Your task to perform on an android device: create a new album in the google photos Image 0: 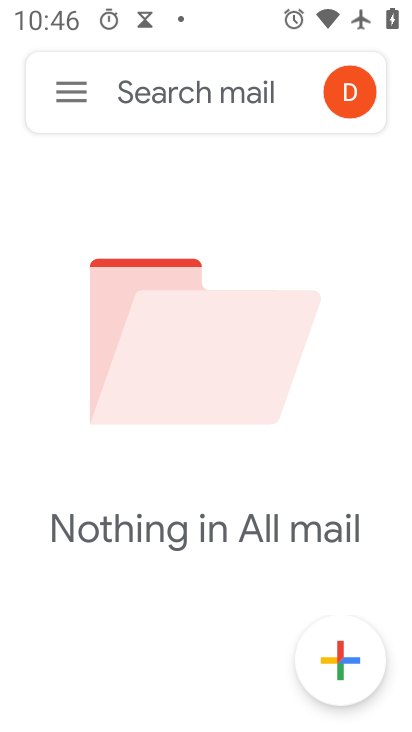
Step 0: press home button
Your task to perform on an android device: create a new album in the google photos Image 1: 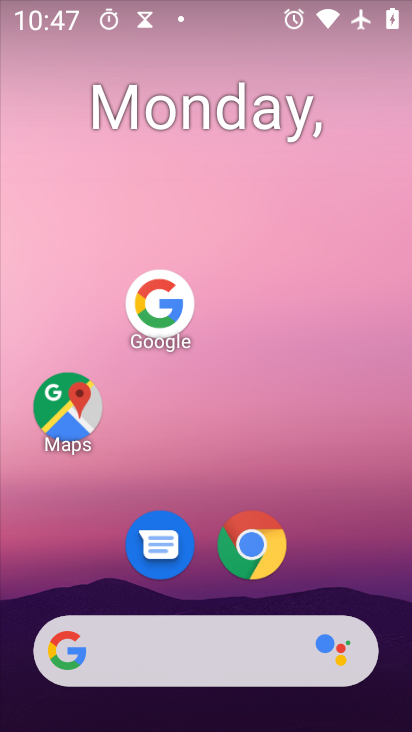
Step 1: drag from (173, 663) to (298, 151)
Your task to perform on an android device: create a new album in the google photos Image 2: 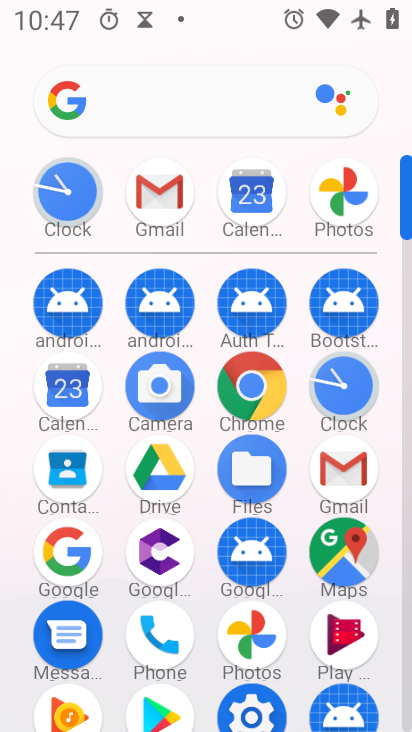
Step 2: drag from (210, 640) to (259, 299)
Your task to perform on an android device: create a new album in the google photos Image 3: 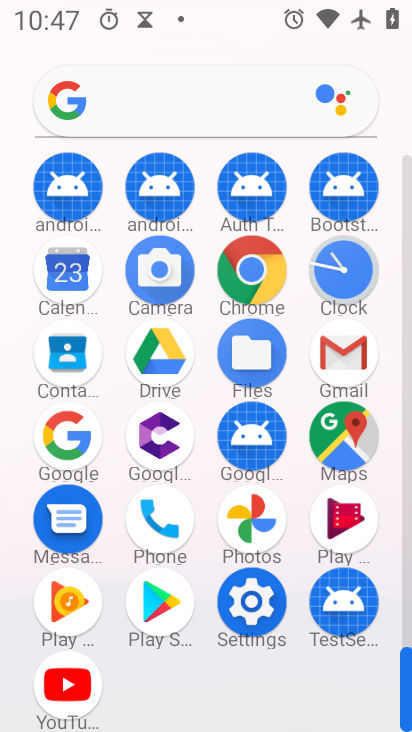
Step 3: click (256, 517)
Your task to perform on an android device: create a new album in the google photos Image 4: 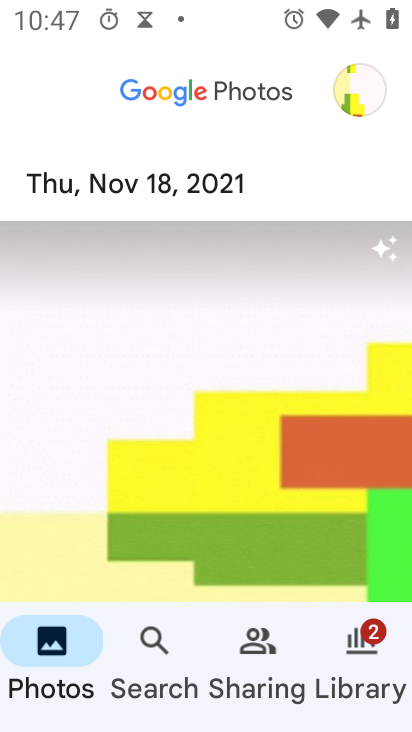
Step 4: click (342, 683)
Your task to perform on an android device: create a new album in the google photos Image 5: 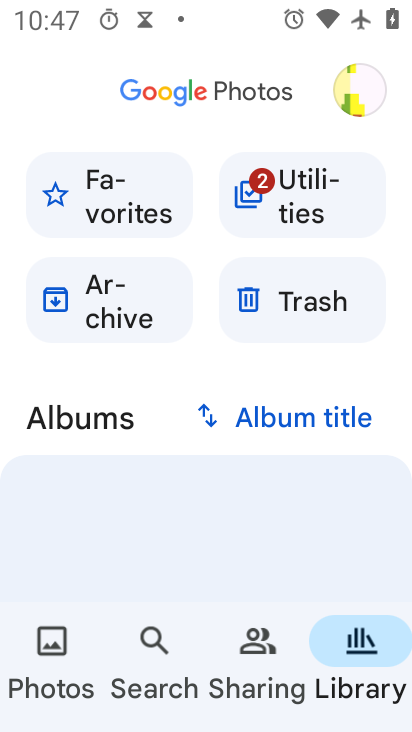
Step 5: drag from (212, 502) to (338, 228)
Your task to perform on an android device: create a new album in the google photos Image 6: 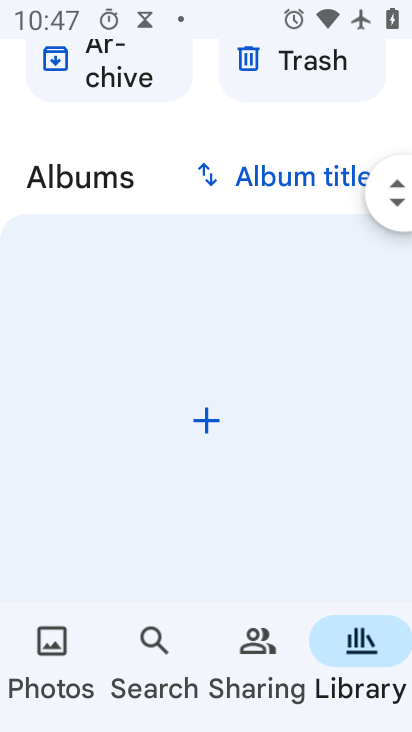
Step 6: click (208, 421)
Your task to perform on an android device: create a new album in the google photos Image 7: 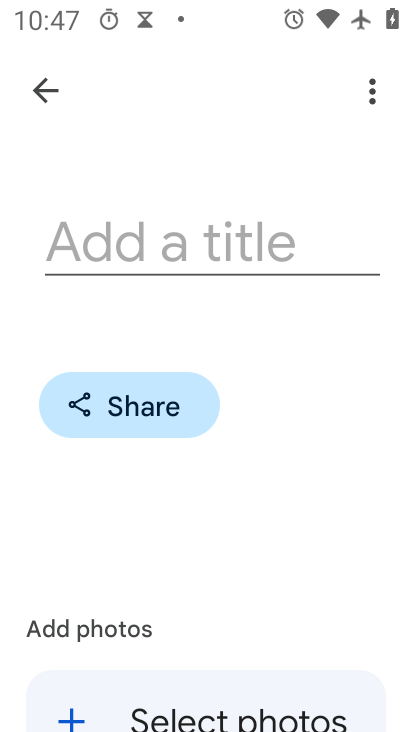
Step 7: drag from (180, 543) to (322, 141)
Your task to perform on an android device: create a new album in the google photos Image 8: 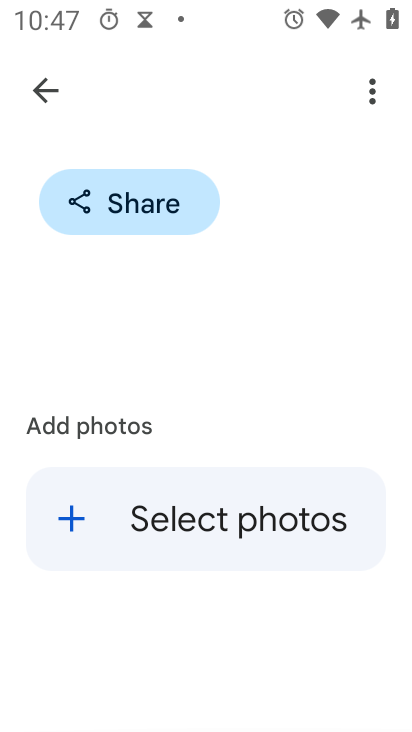
Step 8: click (228, 545)
Your task to perform on an android device: create a new album in the google photos Image 9: 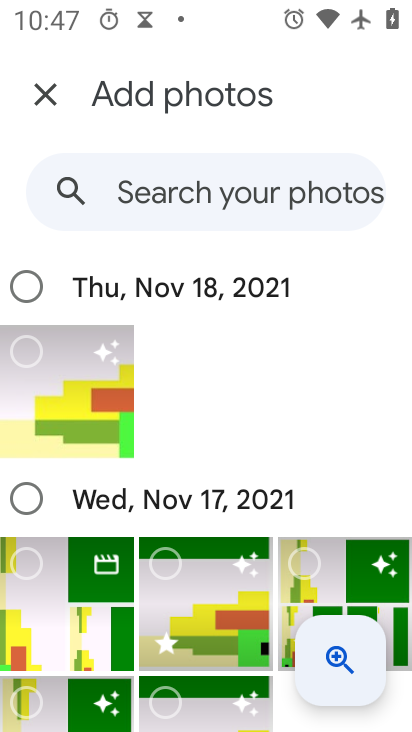
Step 9: click (85, 362)
Your task to perform on an android device: create a new album in the google photos Image 10: 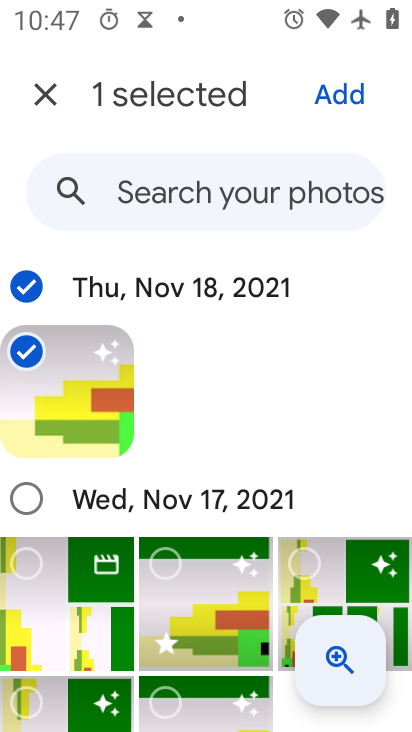
Step 10: click (49, 581)
Your task to perform on an android device: create a new album in the google photos Image 11: 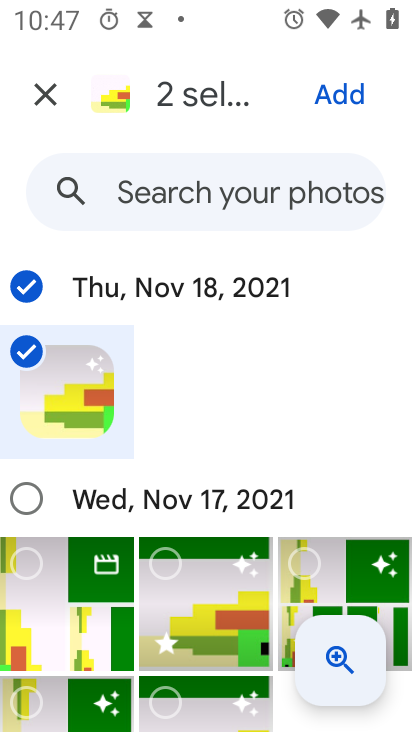
Step 11: click (183, 592)
Your task to perform on an android device: create a new album in the google photos Image 12: 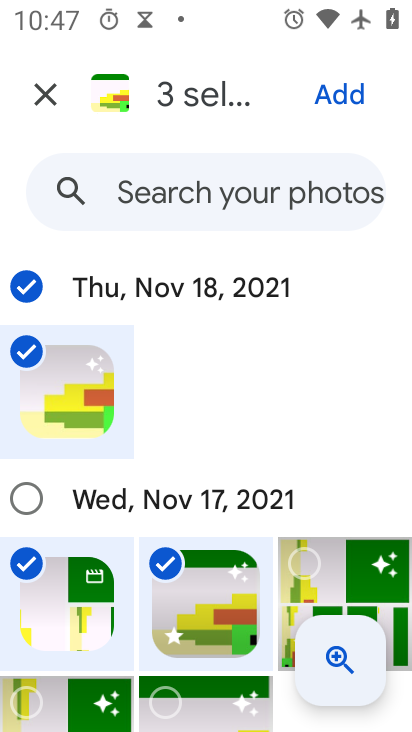
Step 12: click (327, 585)
Your task to perform on an android device: create a new album in the google photos Image 13: 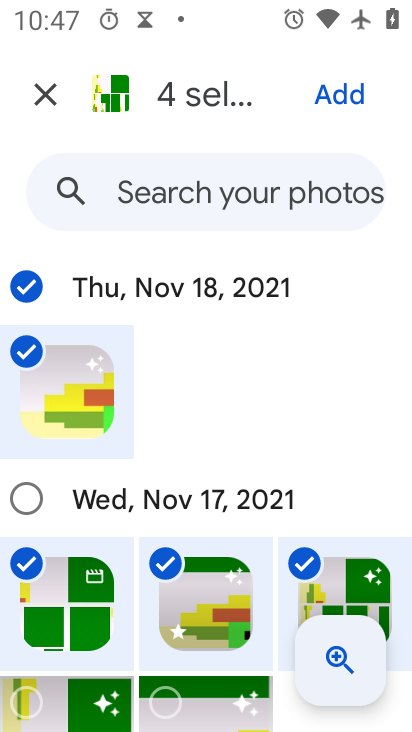
Step 13: click (342, 101)
Your task to perform on an android device: create a new album in the google photos Image 14: 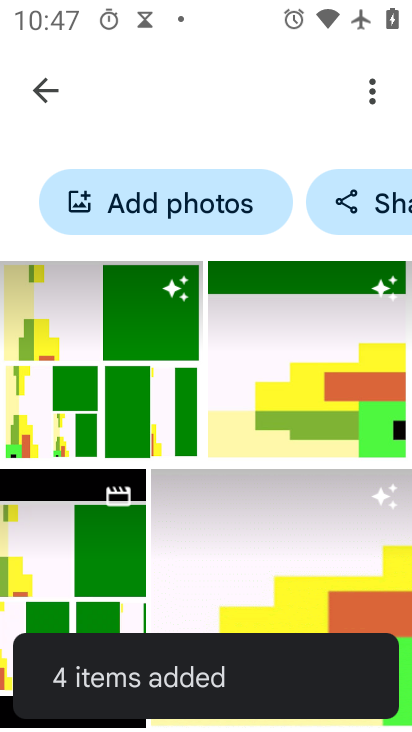
Step 14: task complete